Your task to perform on an android device: toggle show notifications on the lock screen Image 0: 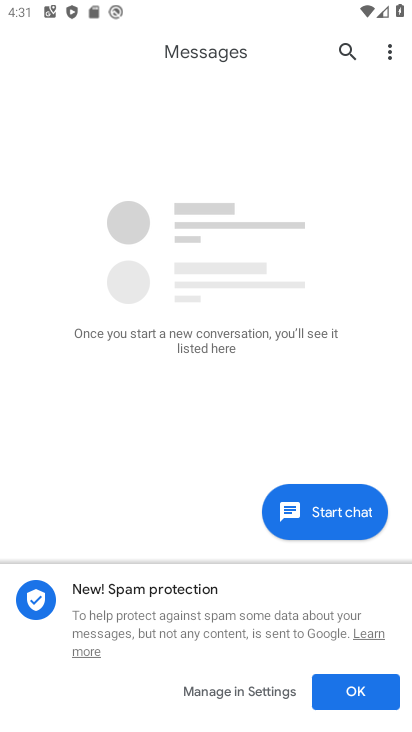
Step 0: press home button
Your task to perform on an android device: toggle show notifications on the lock screen Image 1: 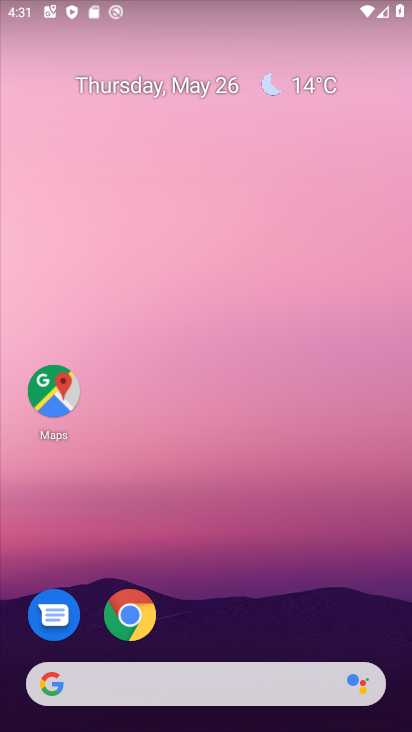
Step 1: drag from (248, 511) to (240, 76)
Your task to perform on an android device: toggle show notifications on the lock screen Image 2: 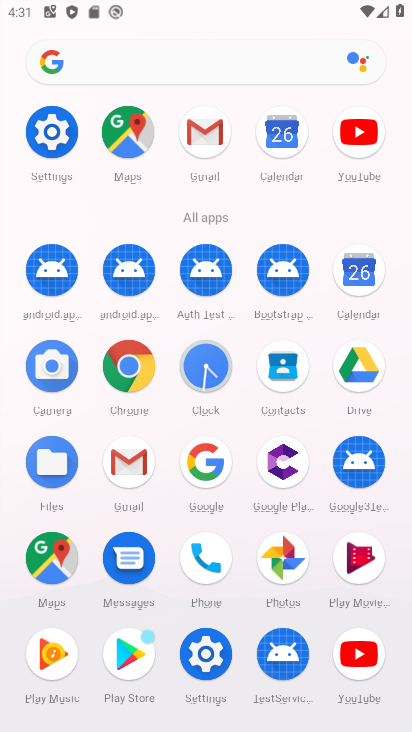
Step 2: click (53, 126)
Your task to perform on an android device: toggle show notifications on the lock screen Image 3: 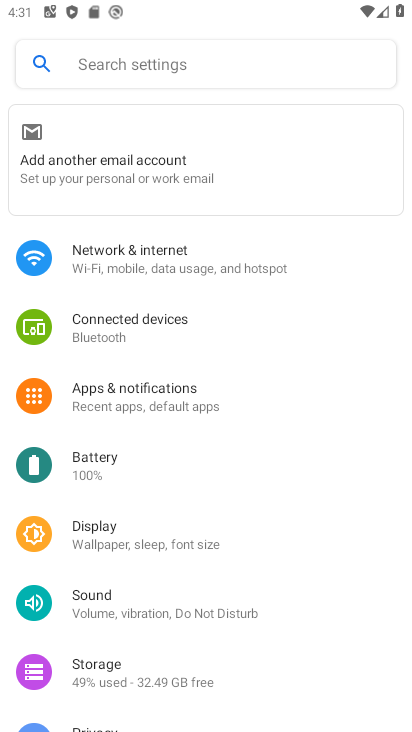
Step 3: click (132, 414)
Your task to perform on an android device: toggle show notifications on the lock screen Image 4: 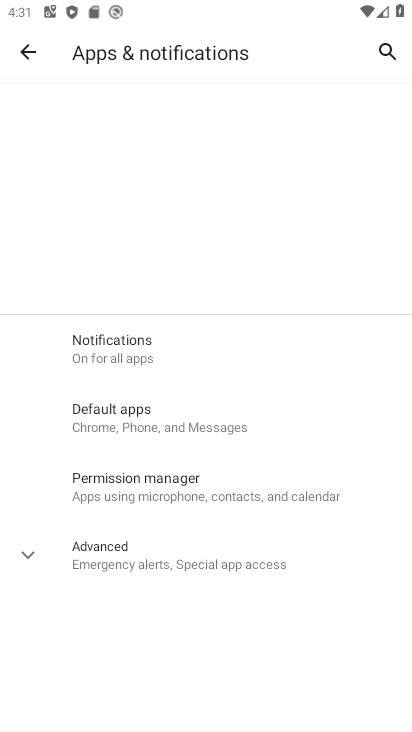
Step 4: click (123, 349)
Your task to perform on an android device: toggle show notifications on the lock screen Image 5: 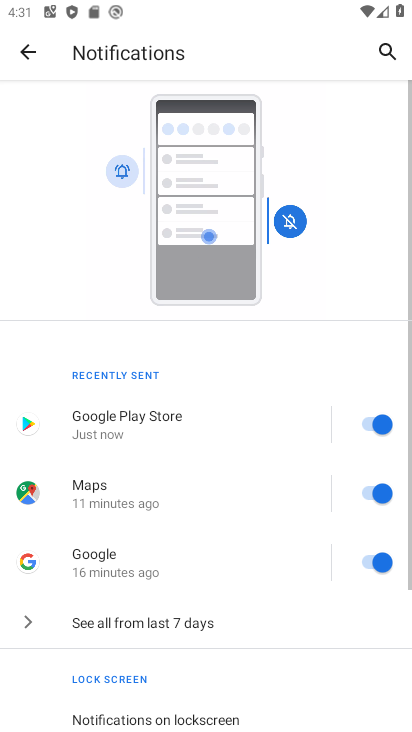
Step 5: drag from (189, 546) to (166, 98)
Your task to perform on an android device: toggle show notifications on the lock screen Image 6: 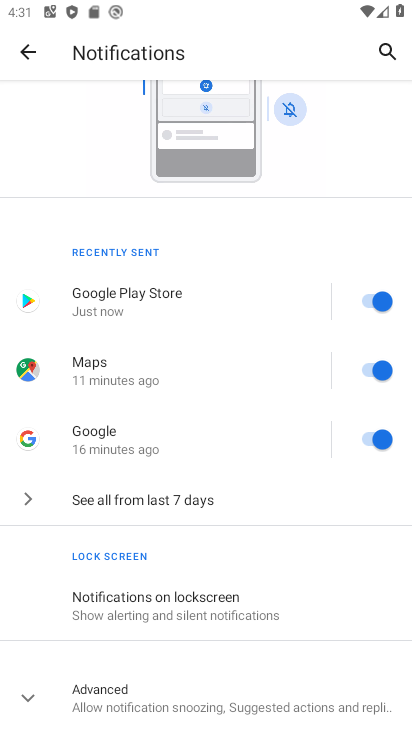
Step 6: click (183, 595)
Your task to perform on an android device: toggle show notifications on the lock screen Image 7: 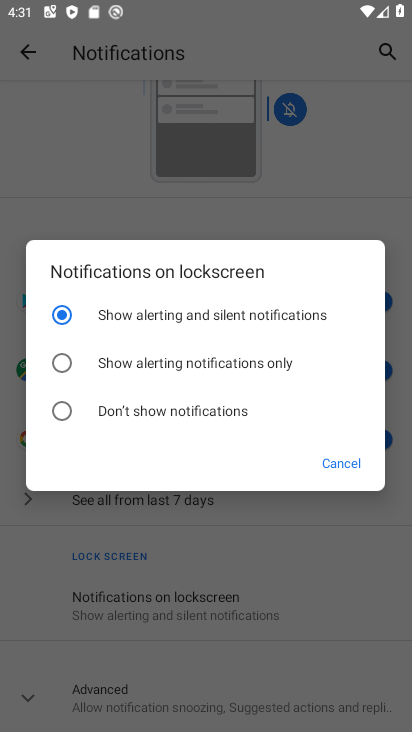
Step 7: click (245, 361)
Your task to perform on an android device: toggle show notifications on the lock screen Image 8: 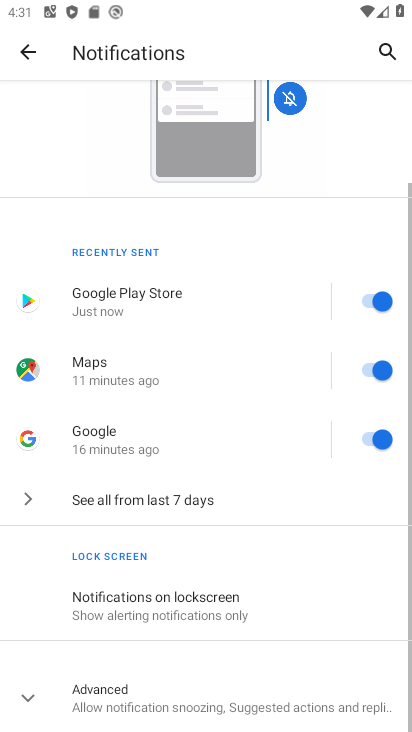
Step 8: task complete